Your task to perform on an android device: change timer sound Image 0: 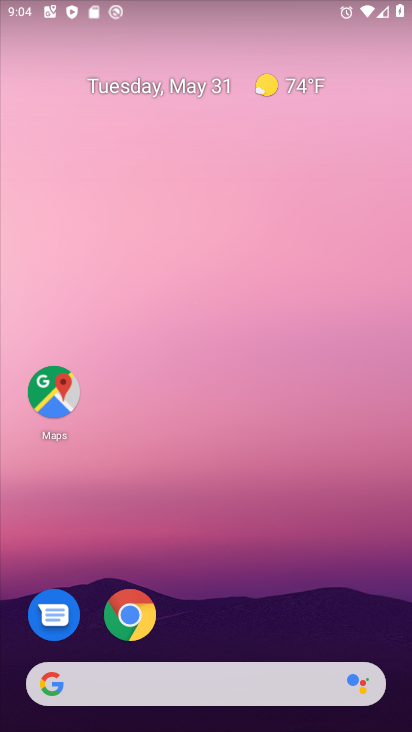
Step 0: drag from (207, 581) to (275, 187)
Your task to perform on an android device: change timer sound Image 1: 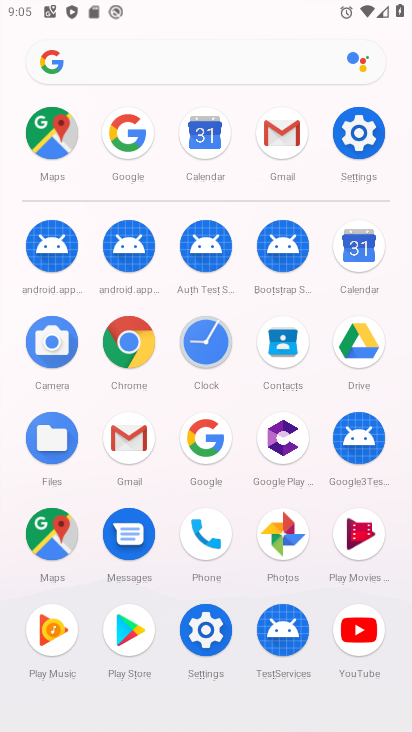
Step 1: click (207, 343)
Your task to perform on an android device: change timer sound Image 2: 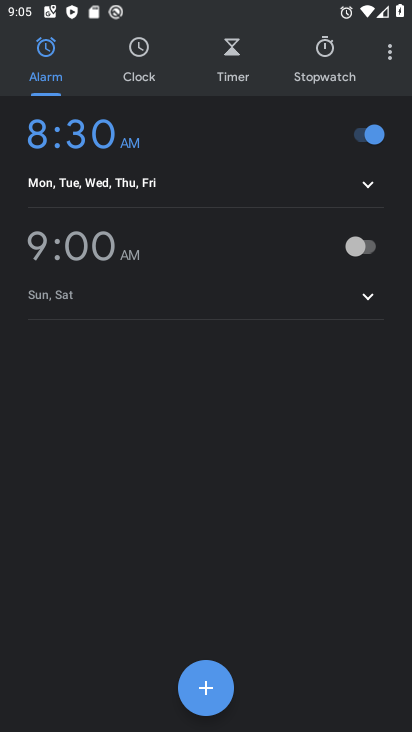
Step 2: click (382, 48)
Your task to perform on an android device: change timer sound Image 3: 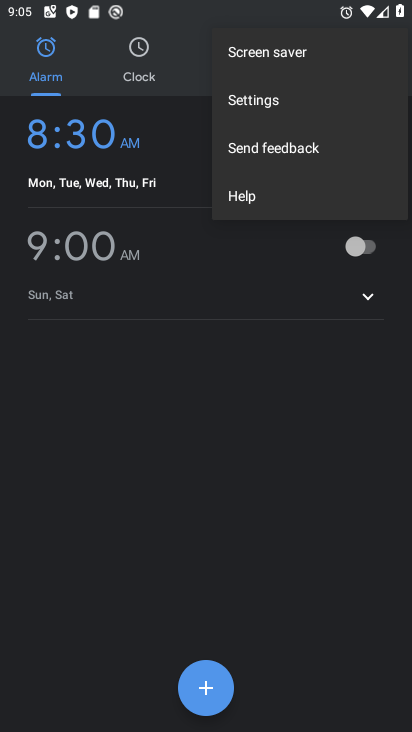
Step 3: click (277, 112)
Your task to perform on an android device: change timer sound Image 4: 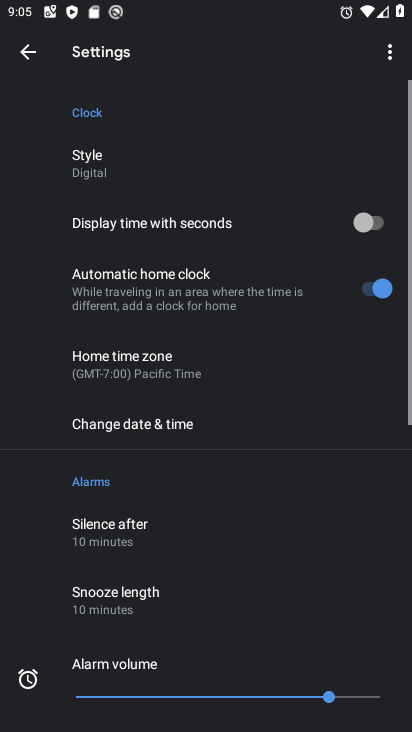
Step 4: drag from (209, 529) to (237, 189)
Your task to perform on an android device: change timer sound Image 5: 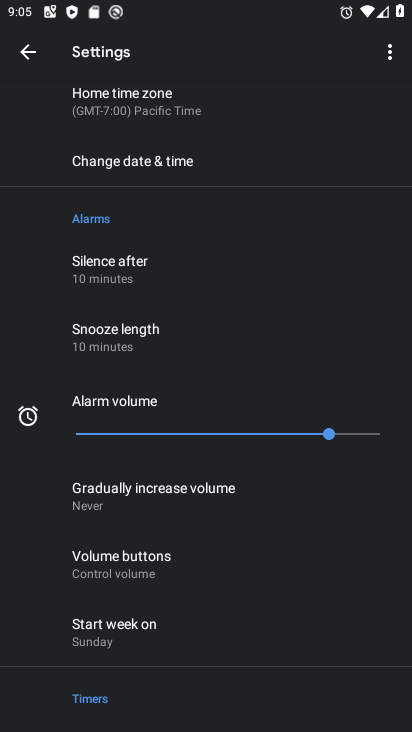
Step 5: drag from (183, 624) to (201, 196)
Your task to perform on an android device: change timer sound Image 6: 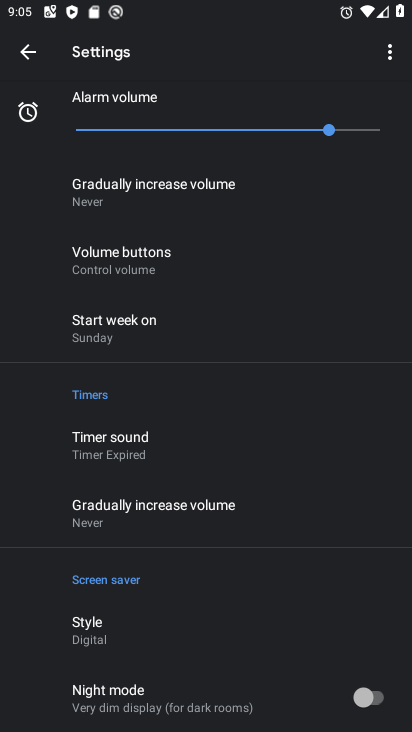
Step 6: click (167, 436)
Your task to perform on an android device: change timer sound Image 7: 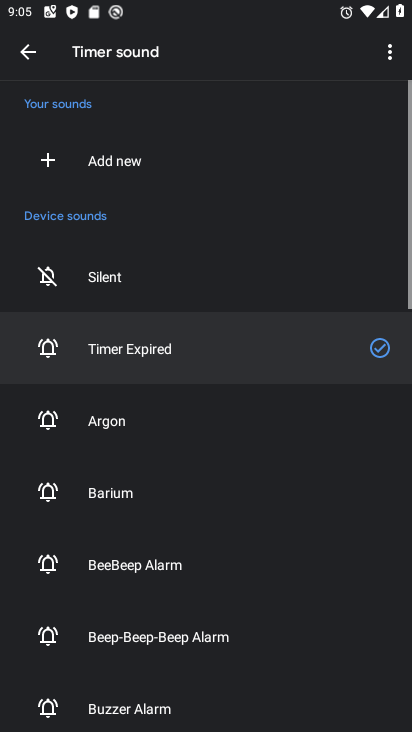
Step 7: click (164, 605)
Your task to perform on an android device: change timer sound Image 8: 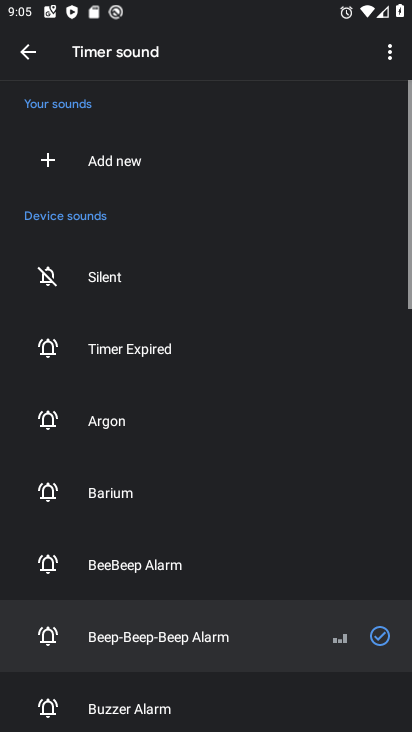
Step 8: task complete